Your task to perform on an android device: uninstall "Pluto TV - Live TV and Movies" Image 0: 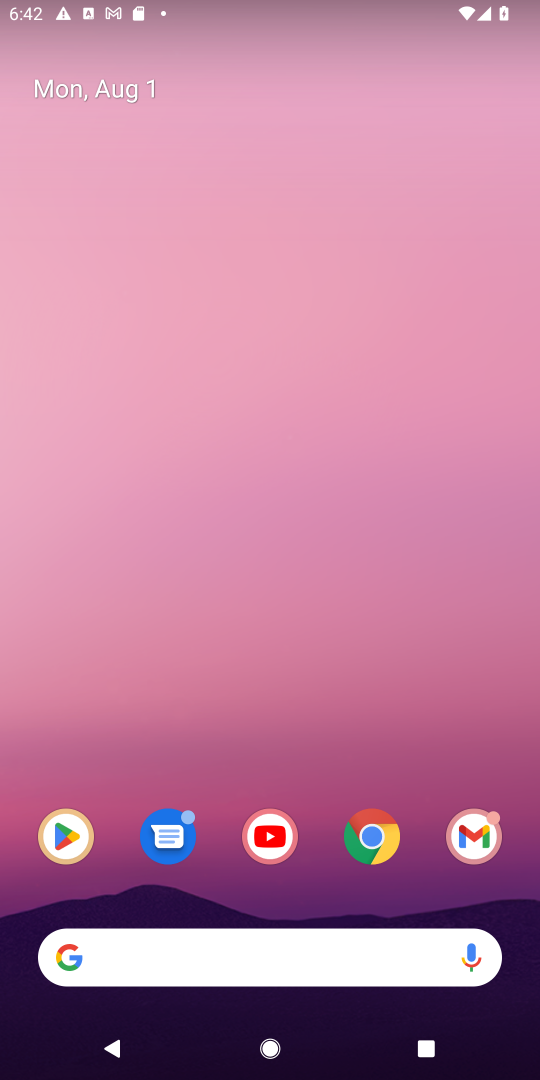
Step 0: press home button
Your task to perform on an android device: uninstall "Pluto TV - Live TV and Movies" Image 1: 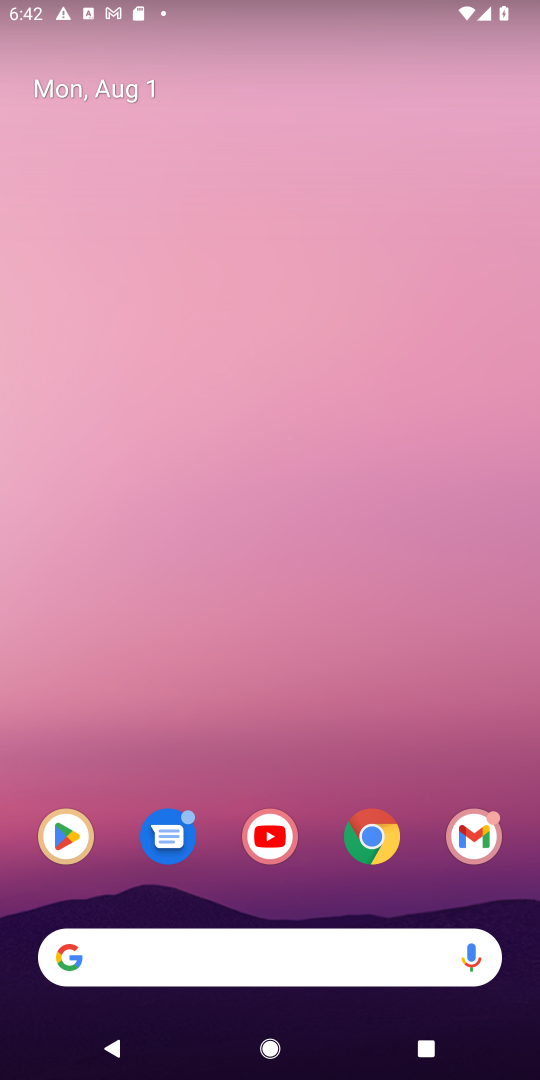
Step 1: click (72, 830)
Your task to perform on an android device: uninstall "Pluto TV - Live TV and Movies" Image 2: 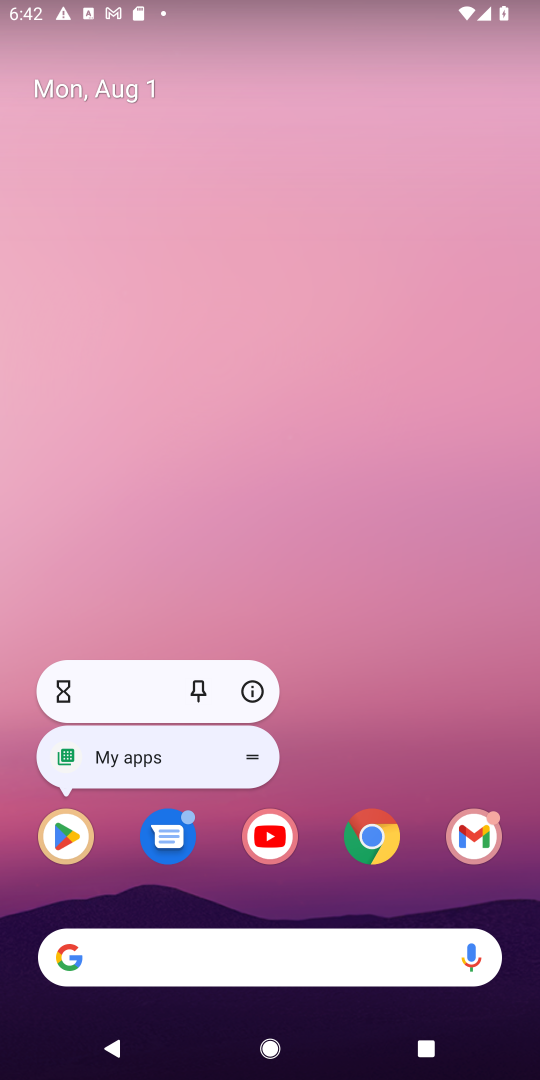
Step 2: click (59, 838)
Your task to perform on an android device: uninstall "Pluto TV - Live TV and Movies" Image 3: 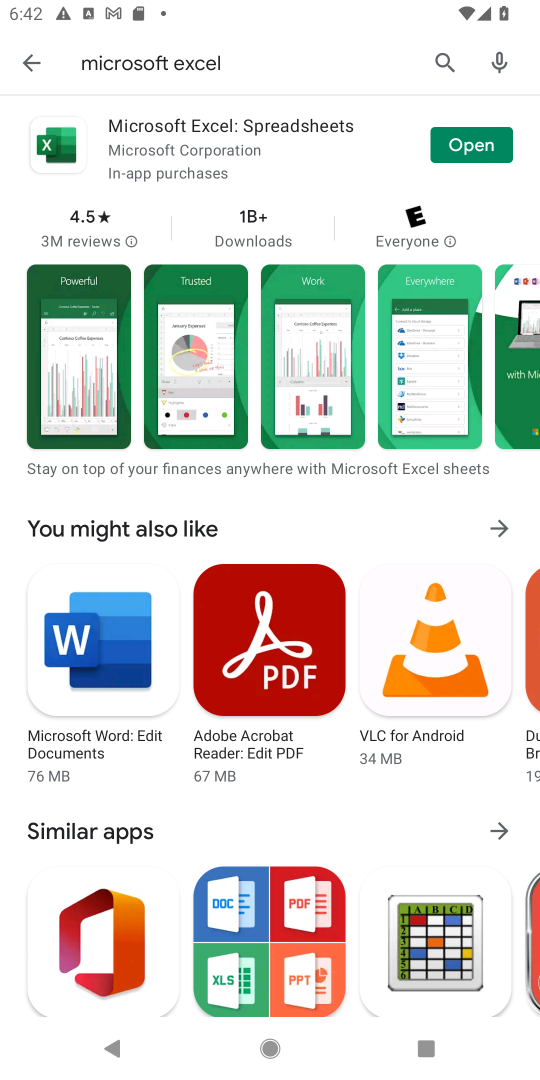
Step 3: click (437, 62)
Your task to perform on an android device: uninstall "Pluto TV - Live TV and Movies" Image 4: 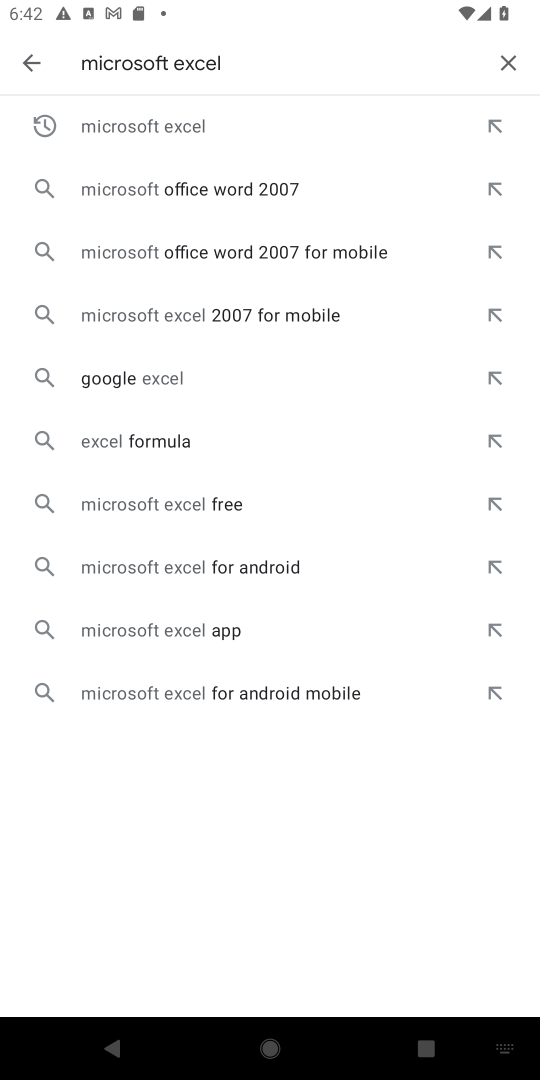
Step 4: click (512, 56)
Your task to perform on an android device: uninstall "Pluto TV - Live TV and Movies" Image 5: 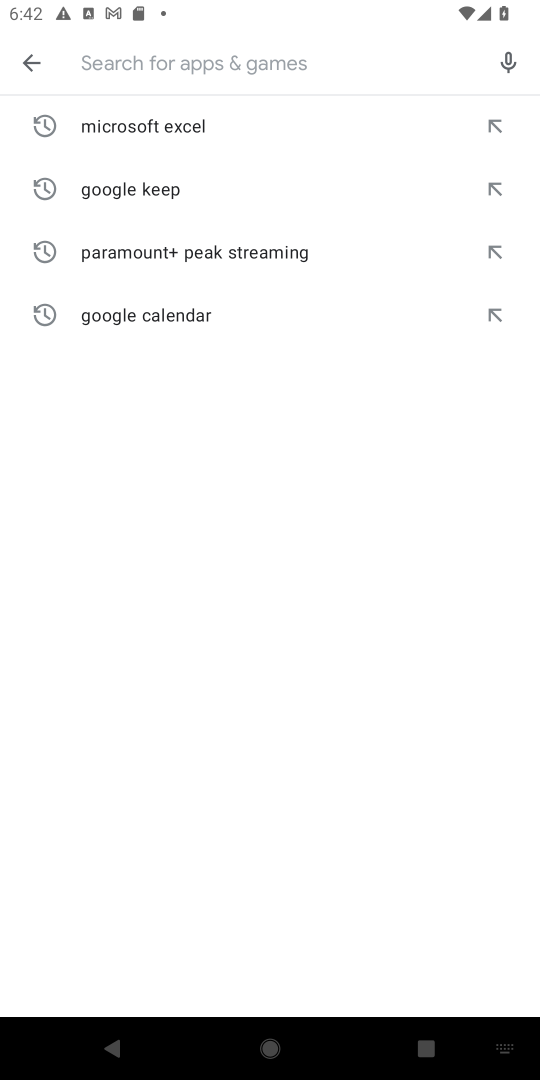
Step 5: type "Pluto TV - Live TV and Movies"
Your task to perform on an android device: uninstall "Pluto TV - Live TV and Movies" Image 6: 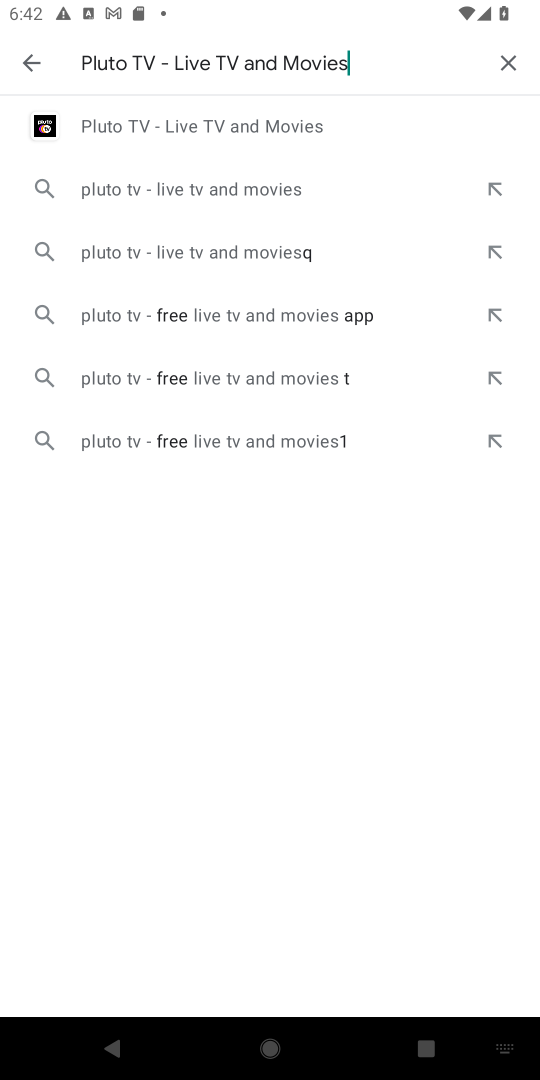
Step 6: click (184, 124)
Your task to perform on an android device: uninstall "Pluto TV - Live TV and Movies" Image 7: 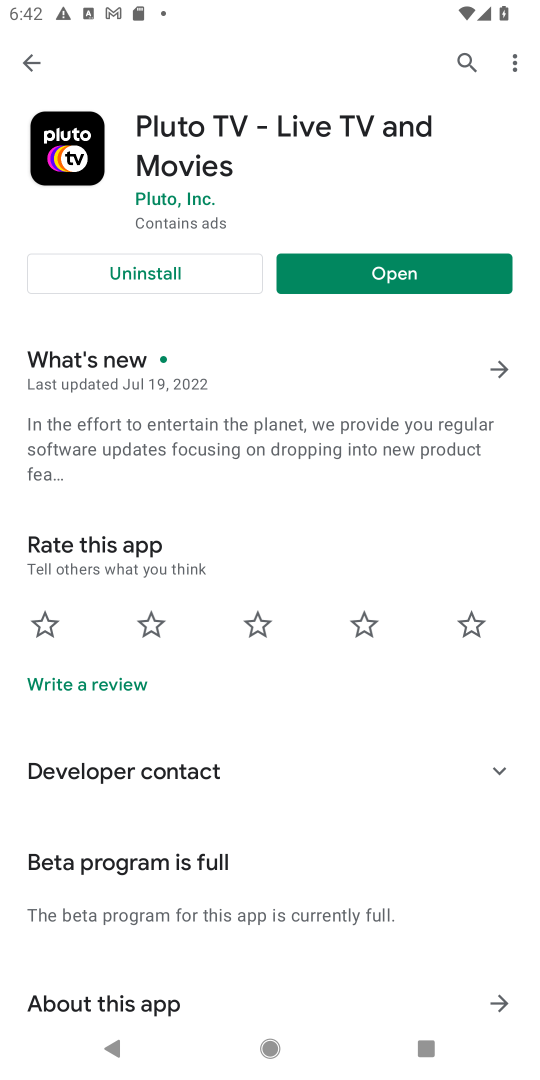
Step 7: click (163, 277)
Your task to perform on an android device: uninstall "Pluto TV - Live TV and Movies" Image 8: 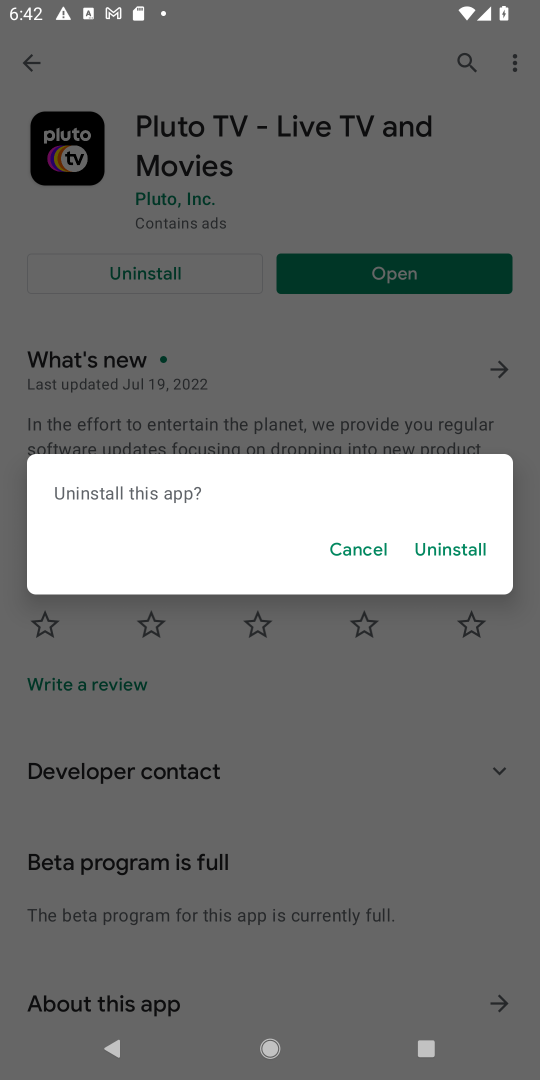
Step 8: click (435, 543)
Your task to perform on an android device: uninstall "Pluto TV - Live TV and Movies" Image 9: 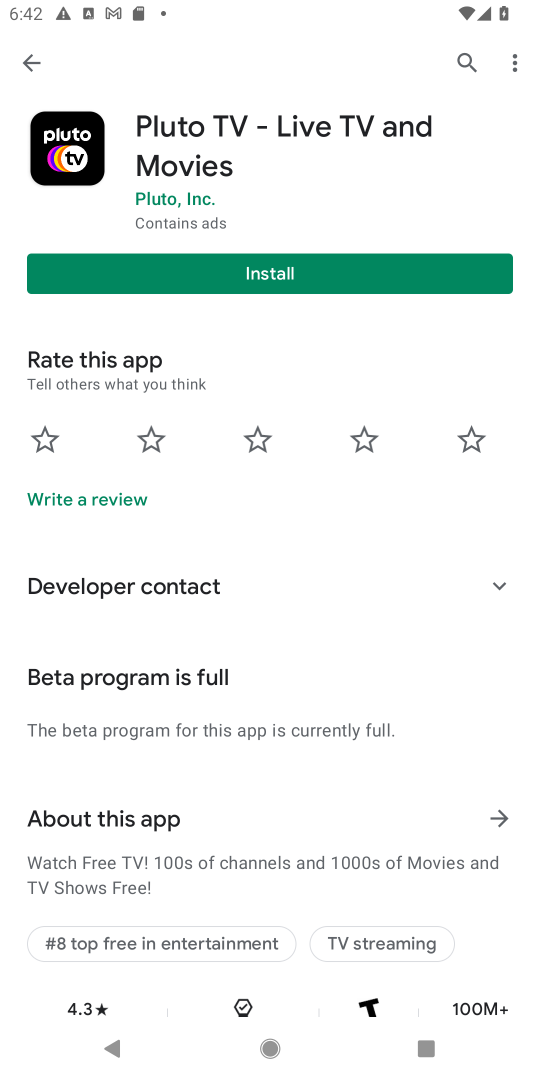
Step 9: task complete